Your task to perform on an android device: turn off airplane mode Image 0: 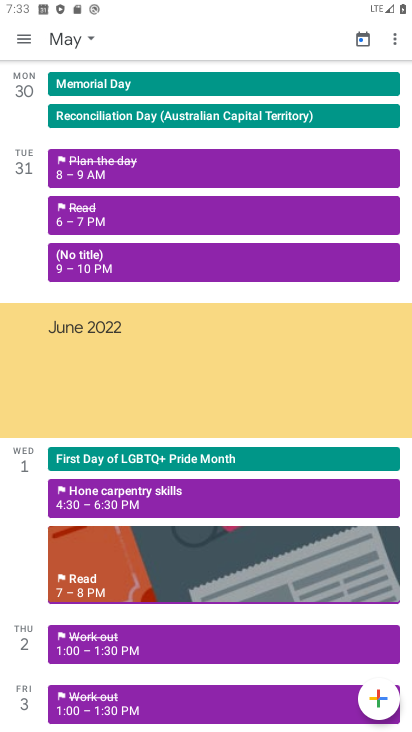
Step 0: press home button
Your task to perform on an android device: turn off airplane mode Image 1: 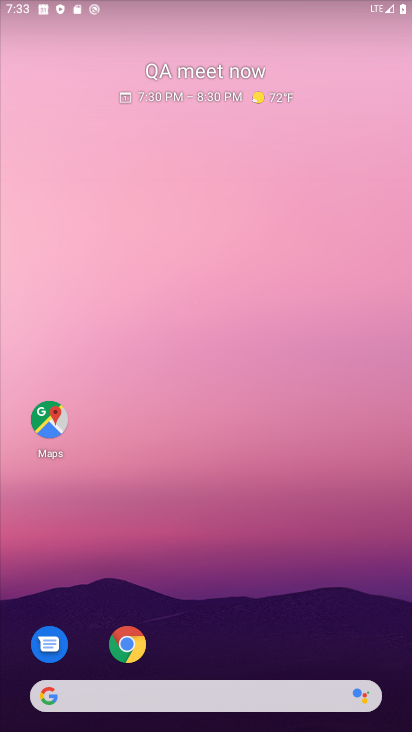
Step 1: drag from (269, 692) to (191, 220)
Your task to perform on an android device: turn off airplane mode Image 2: 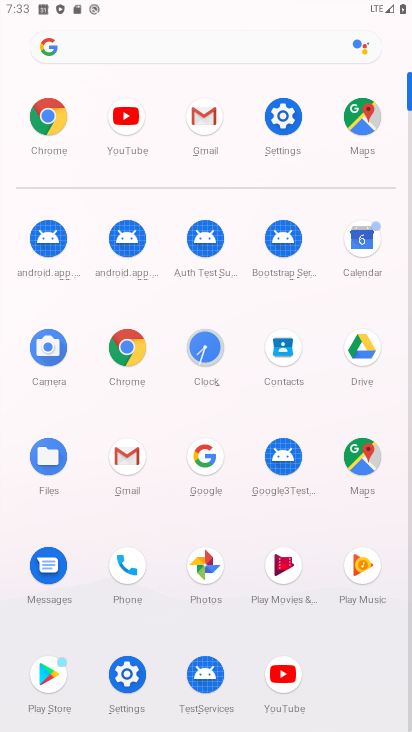
Step 2: click (271, 113)
Your task to perform on an android device: turn off airplane mode Image 3: 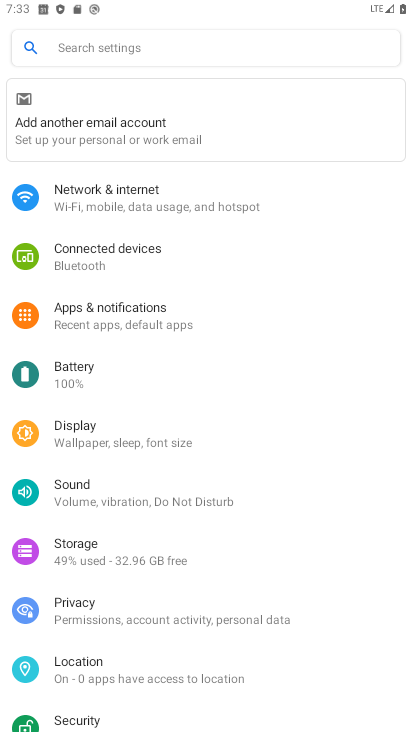
Step 3: click (184, 216)
Your task to perform on an android device: turn off airplane mode Image 4: 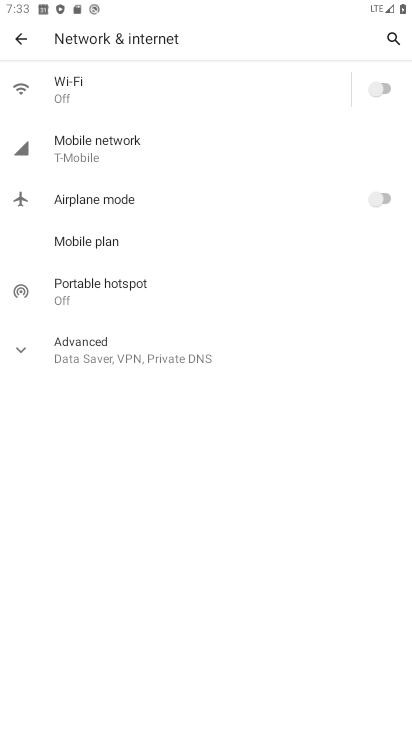
Step 4: click (374, 213)
Your task to perform on an android device: turn off airplane mode Image 5: 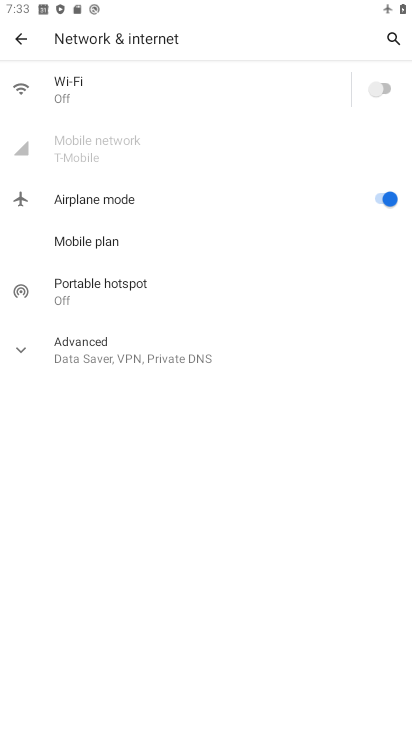
Step 5: click (373, 212)
Your task to perform on an android device: turn off airplane mode Image 6: 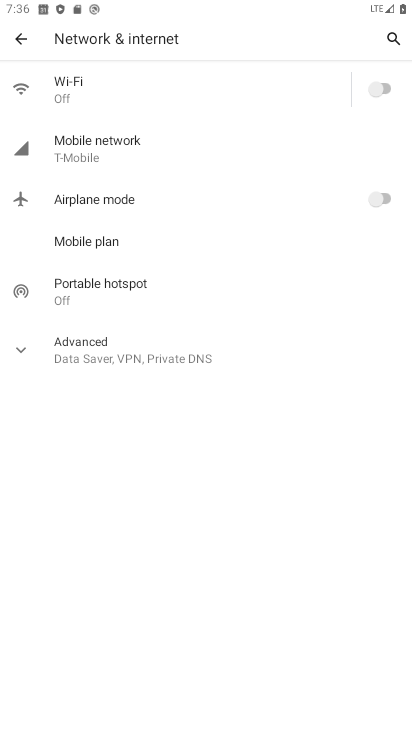
Step 6: task complete